Your task to perform on an android device: Check the weather Image 0: 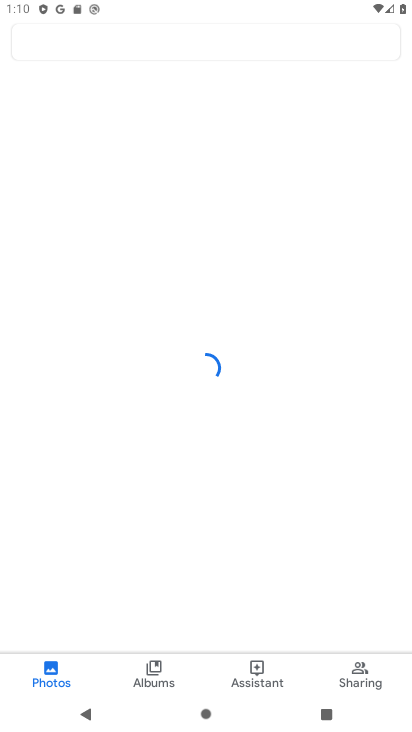
Step 0: press home button
Your task to perform on an android device: Check the weather Image 1: 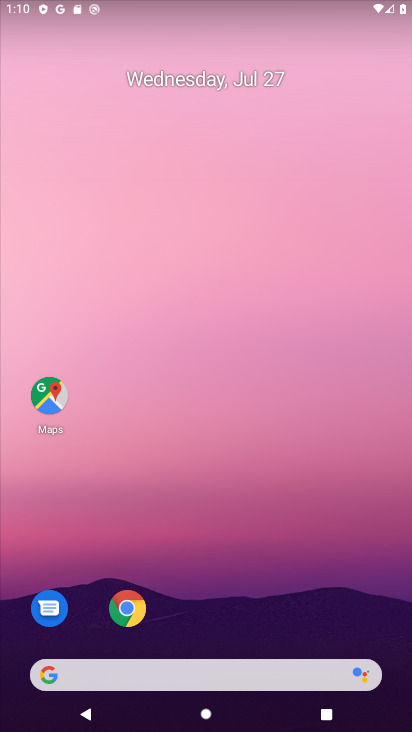
Step 1: drag from (207, 517) to (218, 40)
Your task to perform on an android device: Check the weather Image 2: 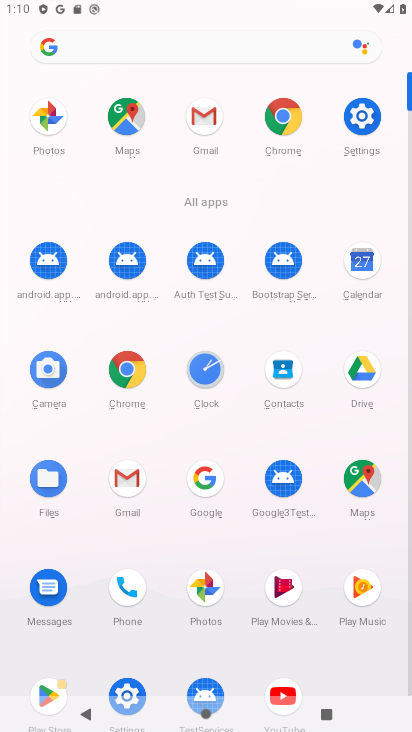
Step 2: click (199, 474)
Your task to perform on an android device: Check the weather Image 3: 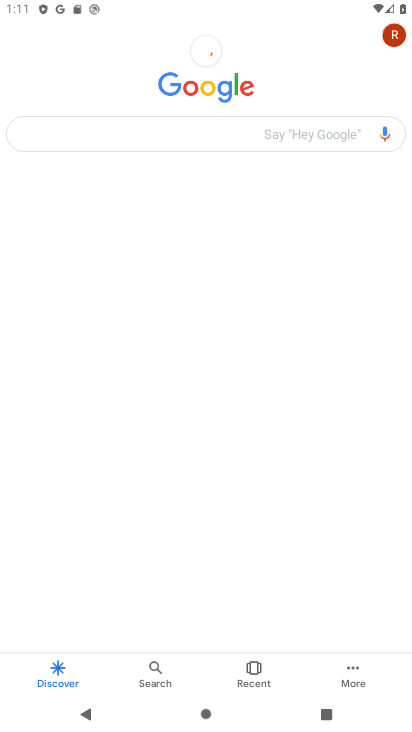
Step 3: click (122, 138)
Your task to perform on an android device: Check the weather Image 4: 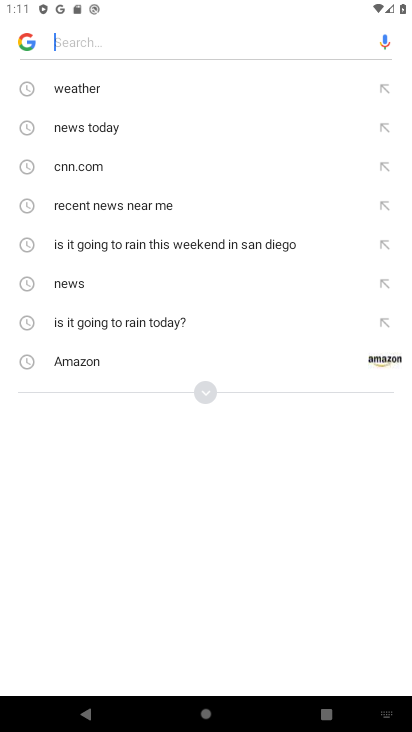
Step 4: click (77, 84)
Your task to perform on an android device: Check the weather Image 5: 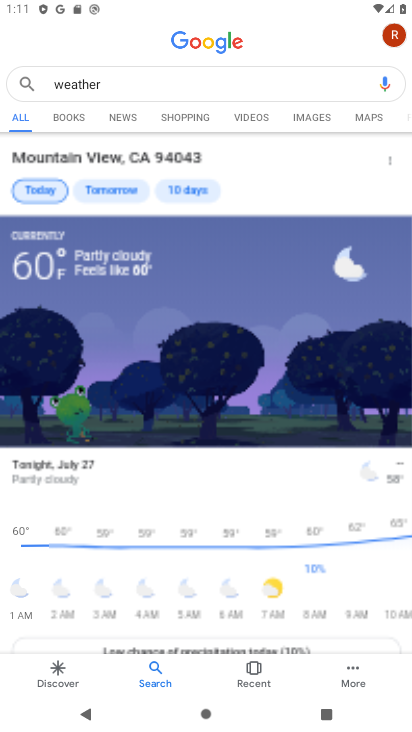
Step 5: click (179, 197)
Your task to perform on an android device: Check the weather Image 6: 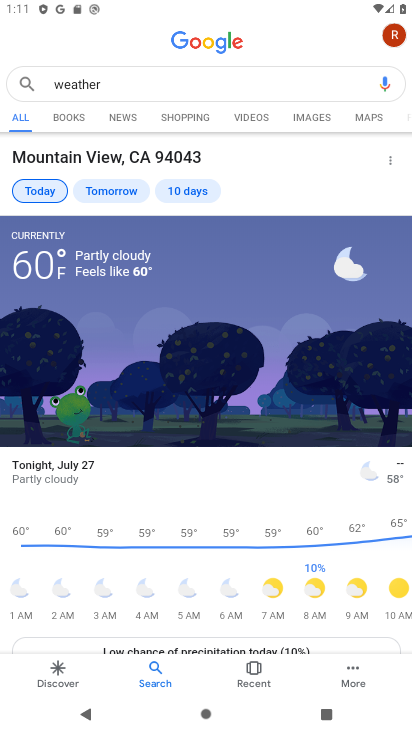
Step 6: click (190, 186)
Your task to perform on an android device: Check the weather Image 7: 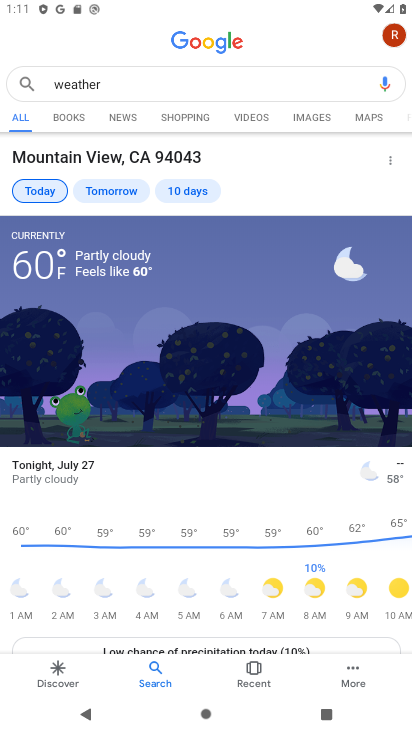
Step 7: click (179, 188)
Your task to perform on an android device: Check the weather Image 8: 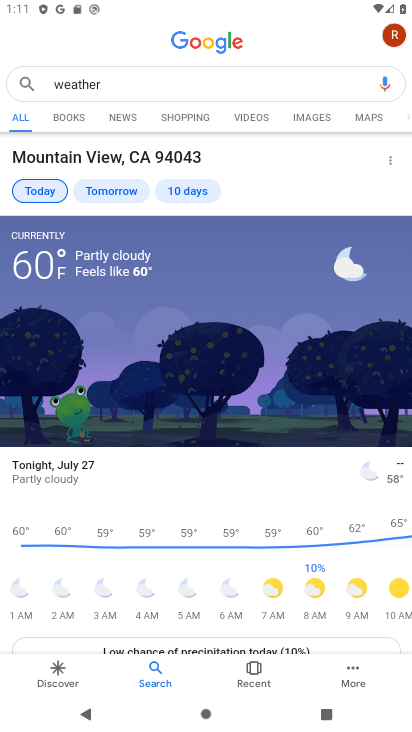
Step 8: click (181, 183)
Your task to perform on an android device: Check the weather Image 9: 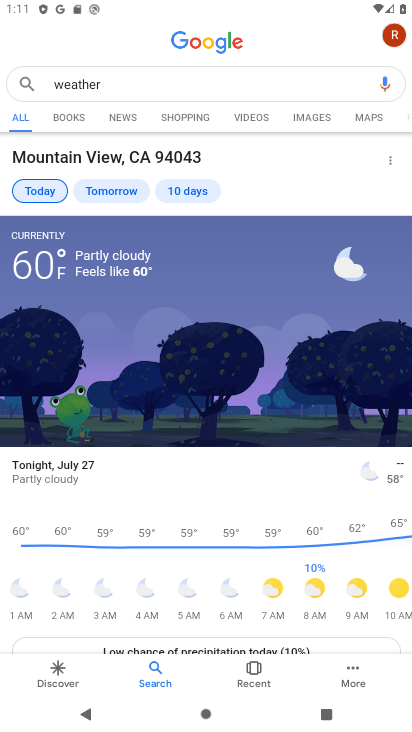
Step 9: task complete